Your task to perform on an android device: toggle airplane mode Image 0: 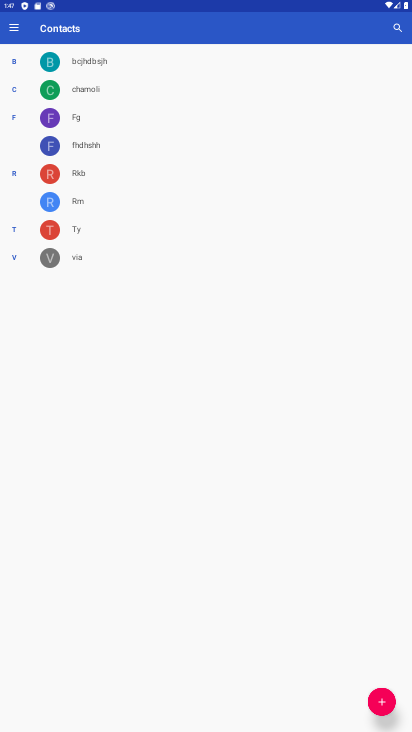
Step 0: press home button
Your task to perform on an android device: toggle airplane mode Image 1: 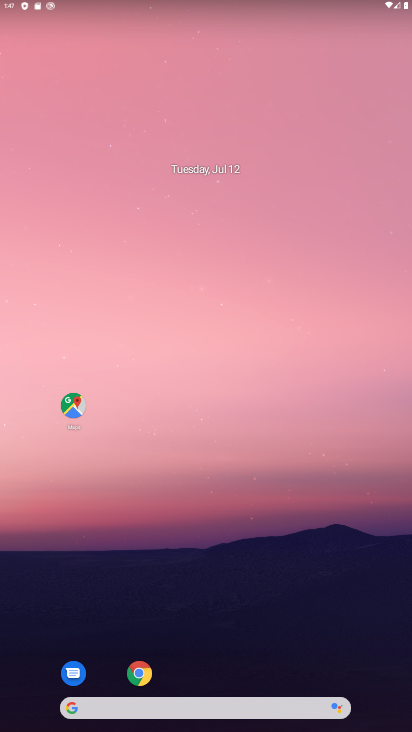
Step 1: drag from (175, 12) to (108, 464)
Your task to perform on an android device: toggle airplane mode Image 2: 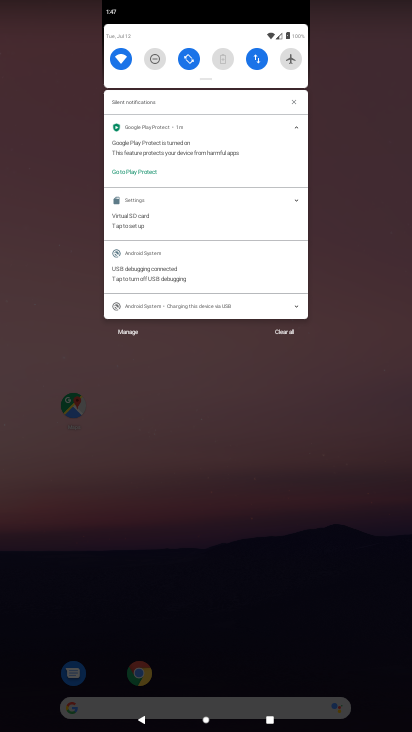
Step 2: click (289, 60)
Your task to perform on an android device: toggle airplane mode Image 3: 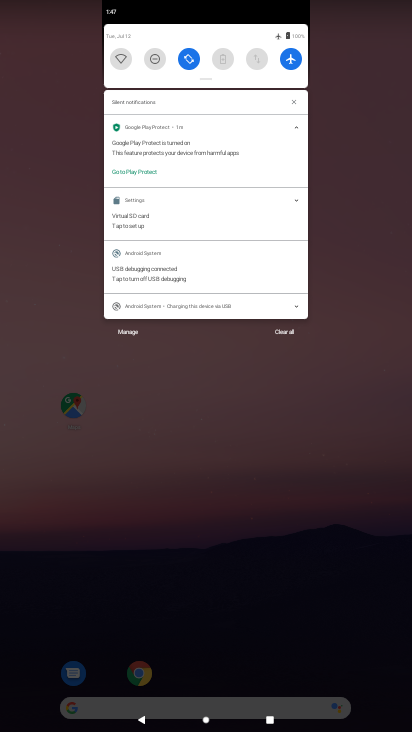
Step 3: task complete